Your task to perform on an android device: Open calendar and show me the fourth week of next month Image 0: 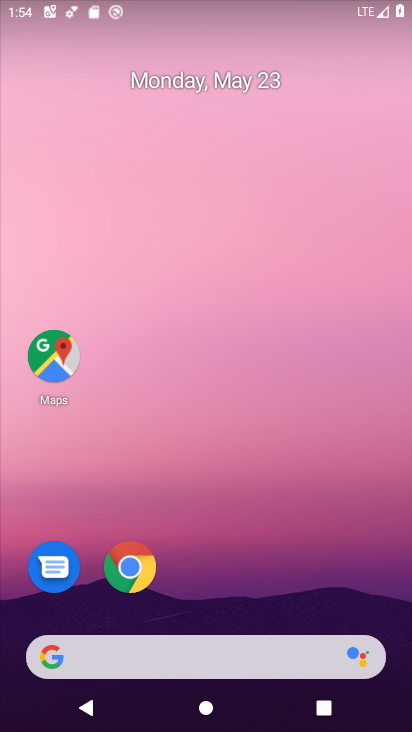
Step 0: drag from (281, 559) to (309, 189)
Your task to perform on an android device: Open calendar and show me the fourth week of next month Image 1: 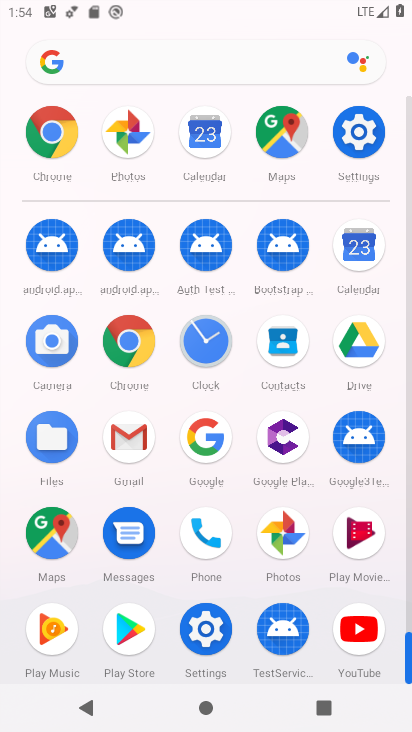
Step 1: click (356, 242)
Your task to perform on an android device: Open calendar and show me the fourth week of next month Image 2: 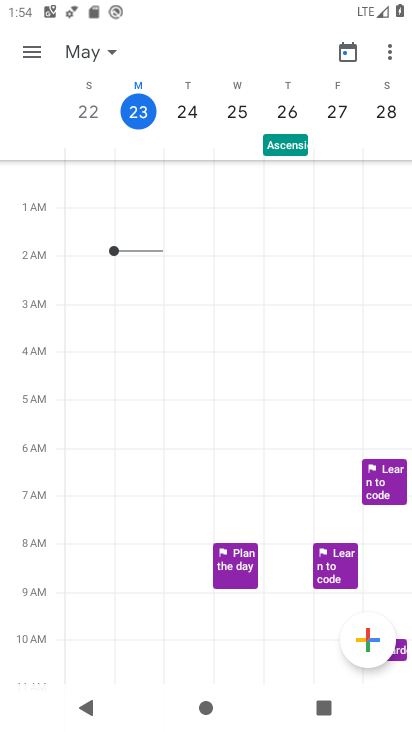
Step 2: click (113, 54)
Your task to perform on an android device: Open calendar and show me the fourth week of next month Image 3: 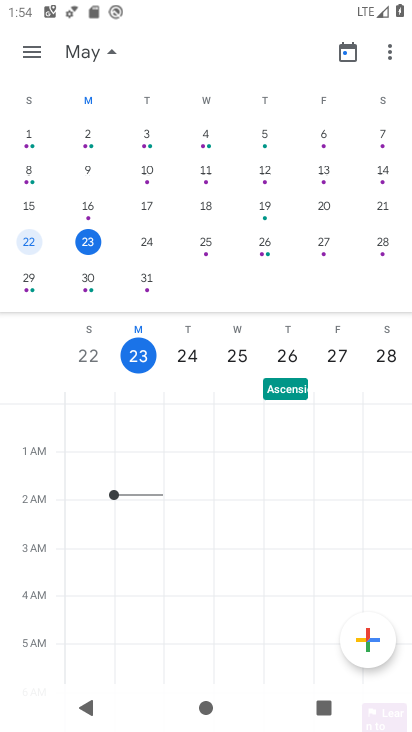
Step 3: drag from (312, 227) to (51, 242)
Your task to perform on an android device: Open calendar and show me the fourth week of next month Image 4: 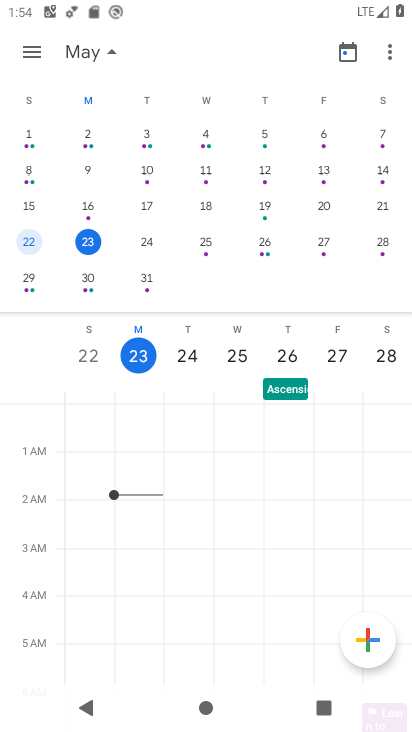
Step 4: drag from (173, 209) to (1, 240)
Your task to perform on an android device: Open calendar and show me the fourth week of next month Image 5: 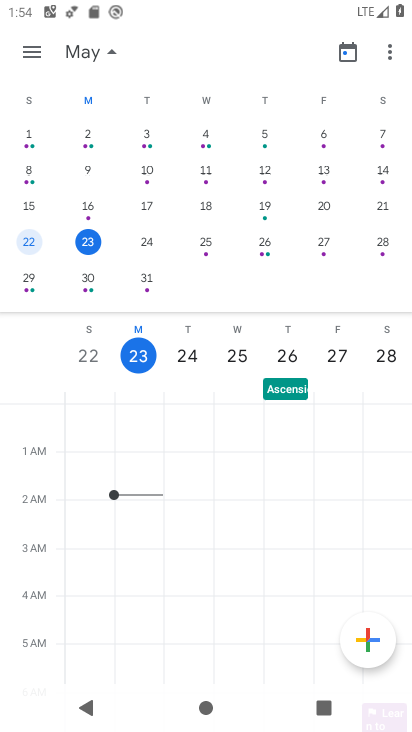
Step 5: drag from (260, 227) to (9, 216)
Your task to perform on an android device: Open calendar and show me the fourth week of next month Image 6: 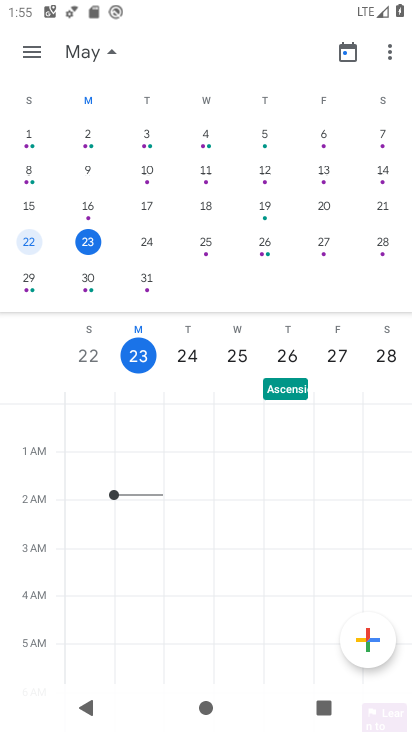
Step 6: drag from (300, 233) to (6, 246)
Your task to perform on an android device: Open calendar and show me the fourth week of next month Image 7: 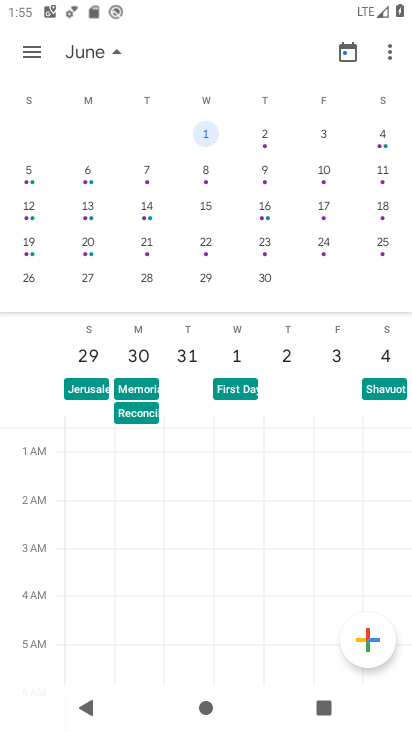
Step 7: click (34, 237)
Your task to perform on an android device: Open calendar and show me the fourth week of next month Image 8: 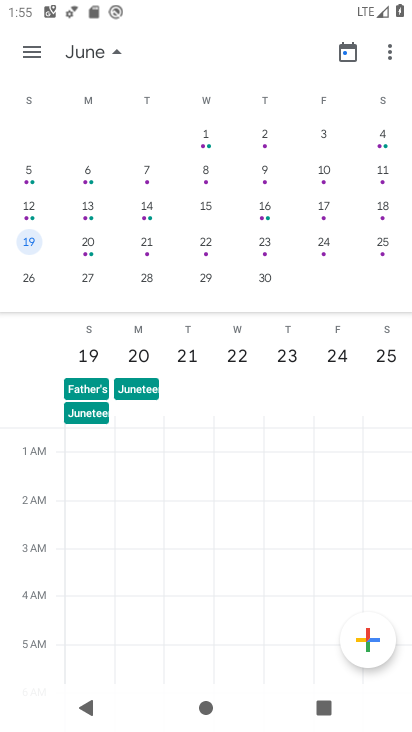
Step 8: click (102, 53)
Your task to perform on an android device: Open calendar and show me the fourth week of next month Image 9: 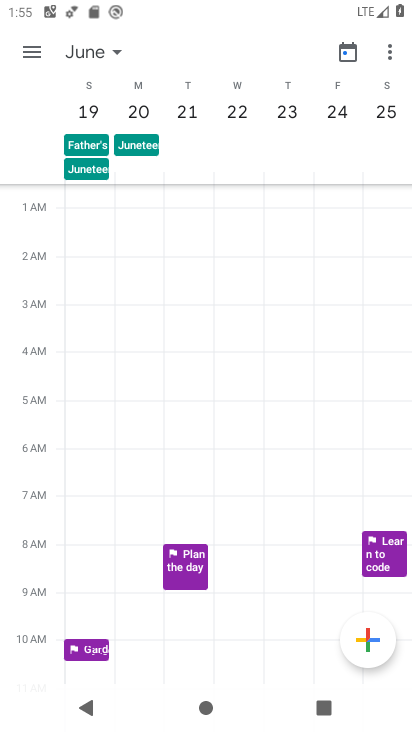
Step 9: task complete